Your task to perform on an android device: Open Maps and search for coffee Image 0: 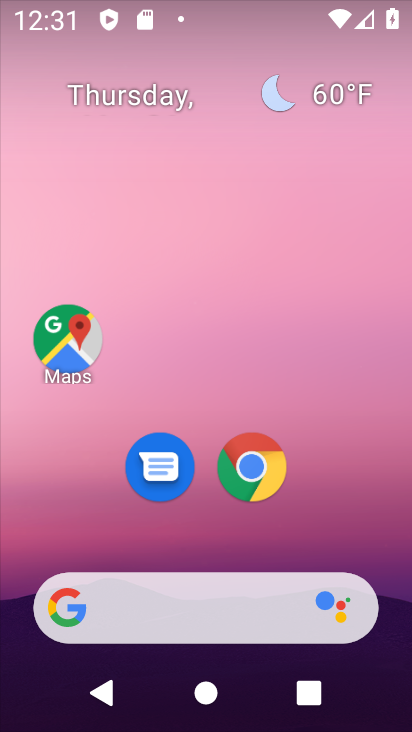
Step 0: click (83, 345)
Your task to perform on an android device: Open Maps and search for coffee Image 1: 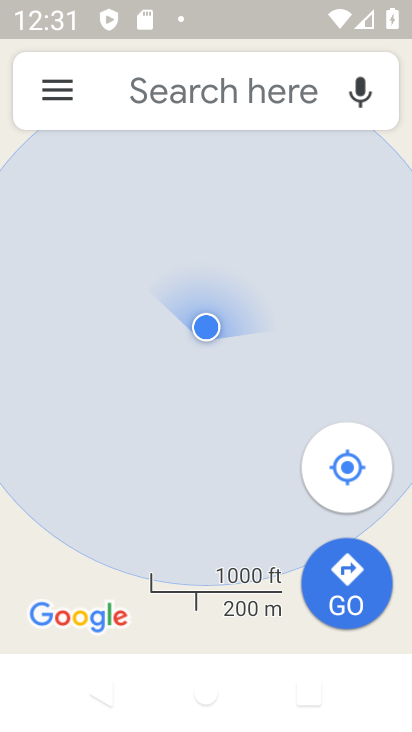
Step 1: click (215, 61)
Your task to perform on an android device: Open Maps and search for coffee Image 2: 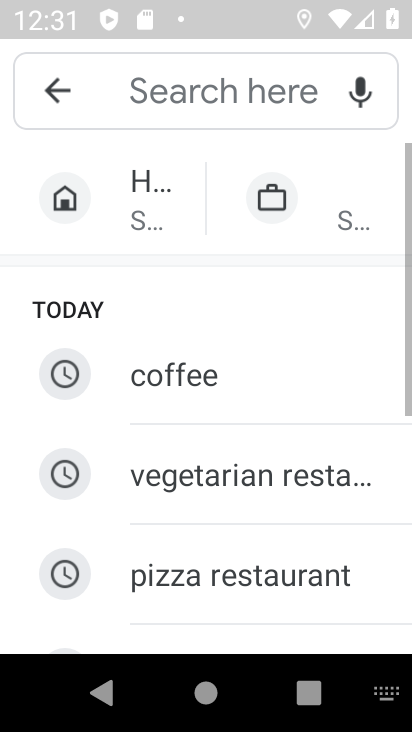
Step 2: type "coffee"
Your task to perform on an android device: Open Maps and search for coffee Image 3: 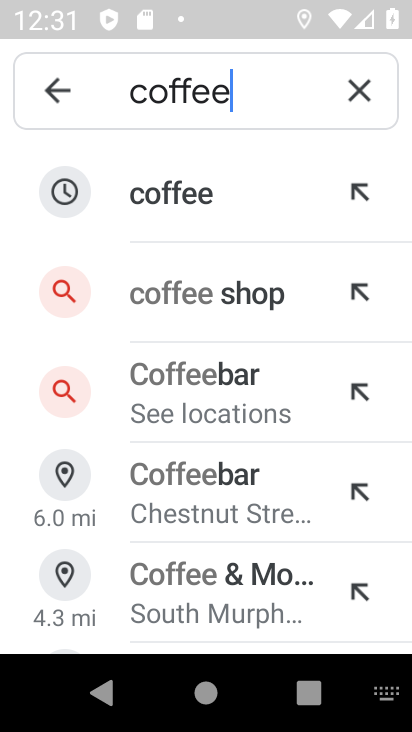
Step 3: click (238, 201)
Your task to perform on an android device: Open Maps and search for coffee Image 4: 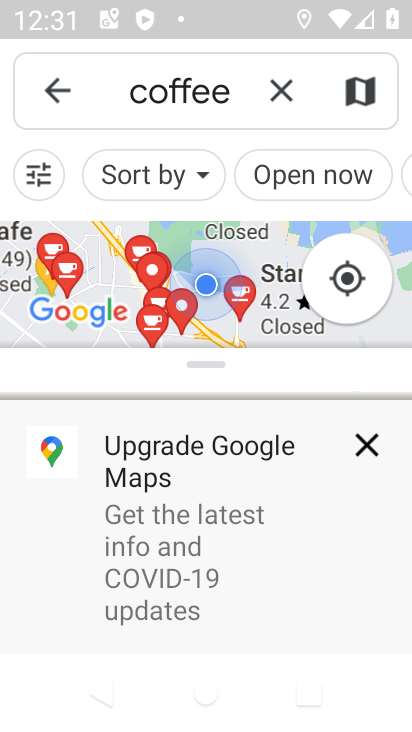
Step 4: task complete